Your task to perform on an android device: turn on sleep mode Image 0: 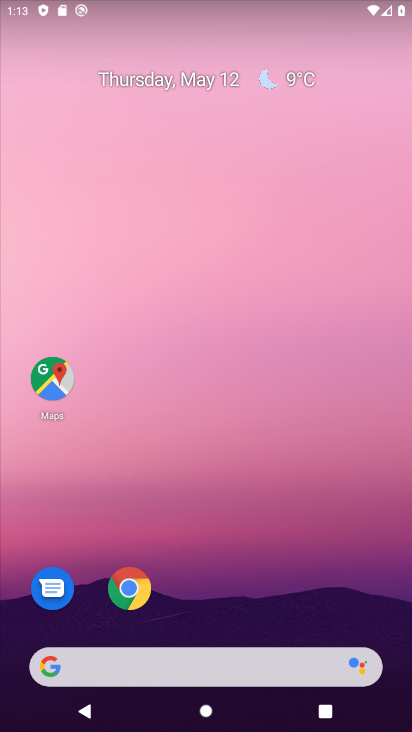
Step 0: drag from (196, 639) to (241, 198)
Your task to perform on an android device: turn on sleep mode Image 1: 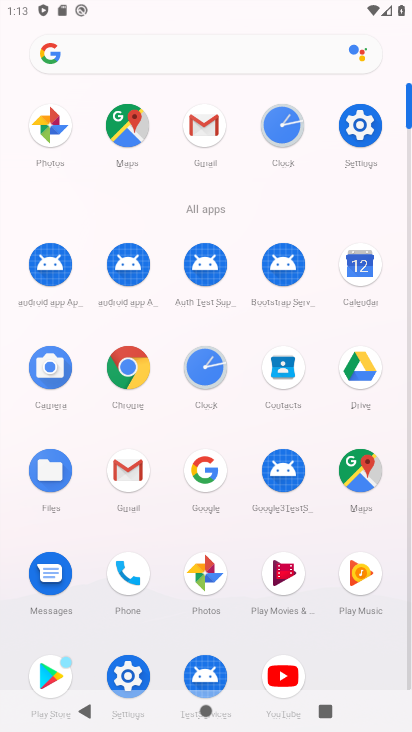
Step 1: click (125, 680)
Your task to perform on an android device: turn on sleep mode Image 2: 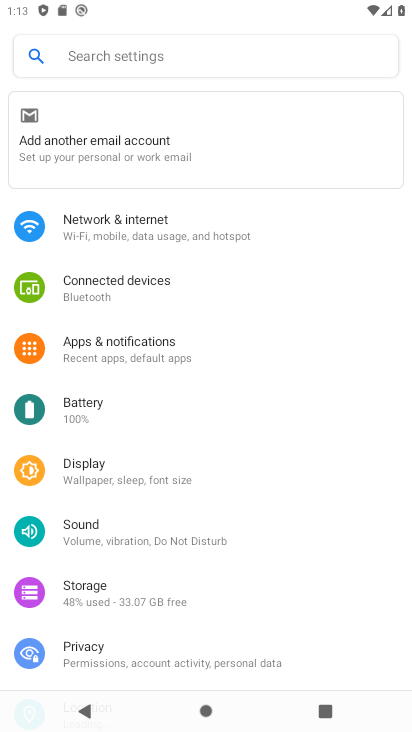
Step 2: click (149, 472)
Your task to perform on an android device: turn on sleep mode Image 3: 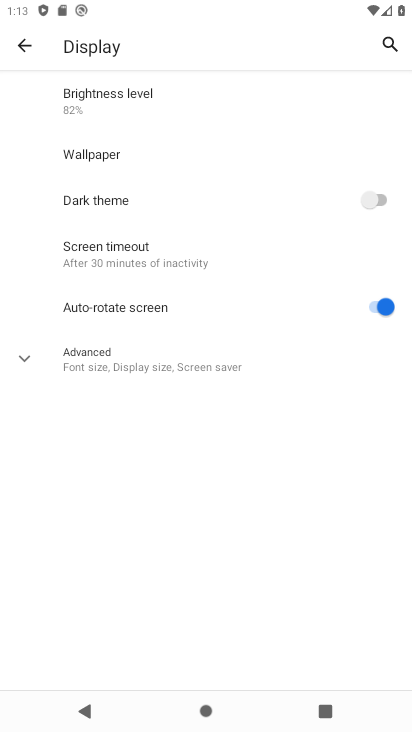
Step 3: click (166, 363)
Your task to perform on an android device: turn on sleep mode Image 4: 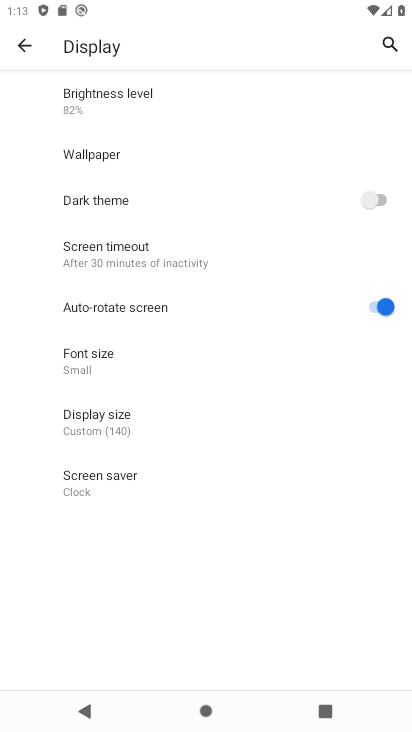
Step 4: task complete